Your task to perform on an android device: see creations saved in the google photos Image 0: 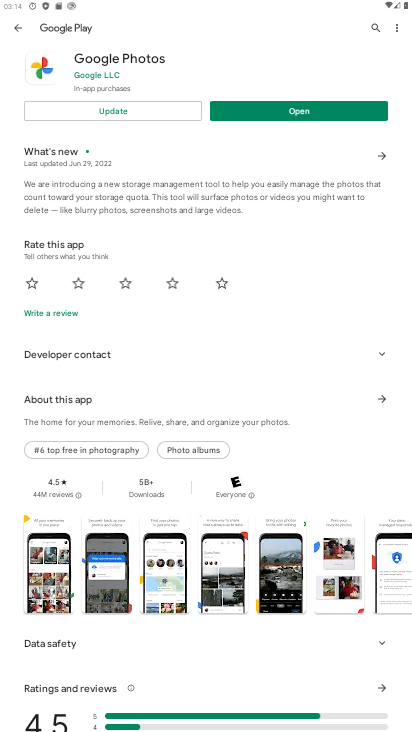
Step 0: press home button
Your task to perform on an android device: see creations saved in the google photos Image 1: 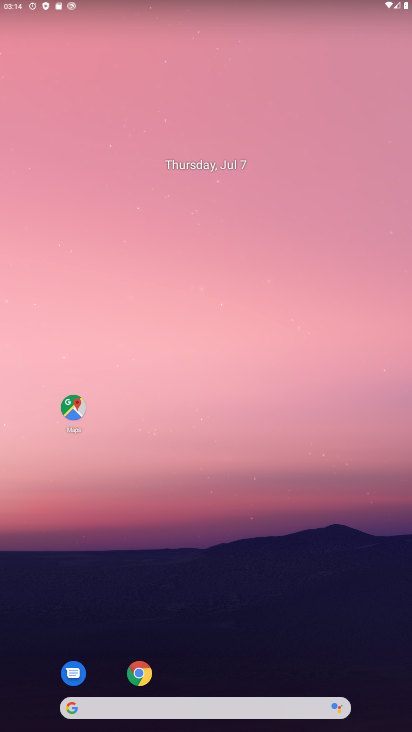
Step 1: drag from (197, 652) to (253, 185)
Your task to perform on an android device: see creations saved in the google photos Image 2: 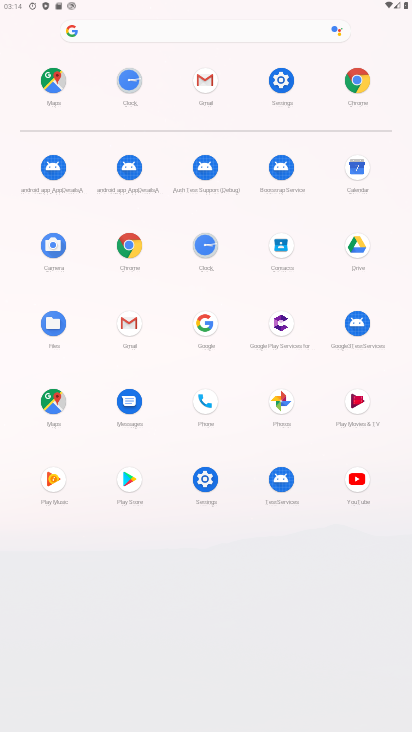
Step 2: click (280, 398)
Your task to perform on an android device: see creations saved in the google photos Image 3: 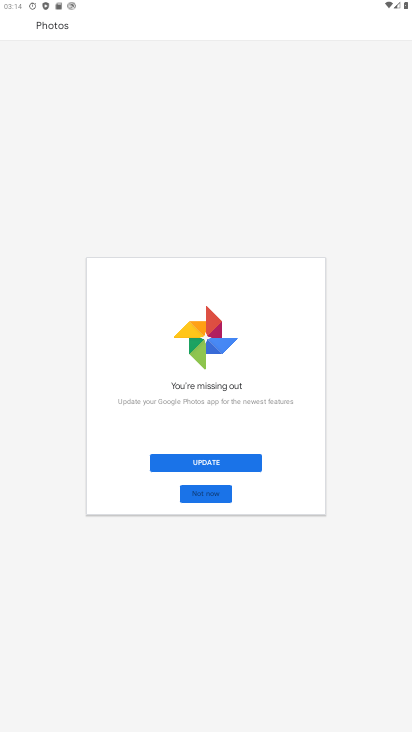
Step 3: click (209, 489)
Your task to perform on an android device: see creations saved in the google photos Image 4: 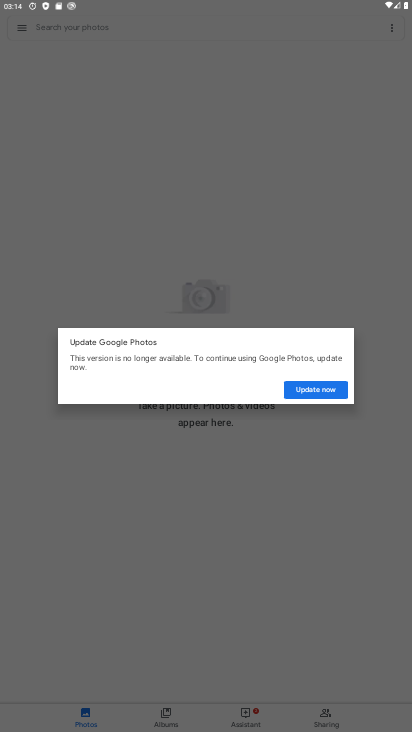
Step 4: click (293, 383)
Your task to perform on an android device: see creations saved in the google photos Image 5: 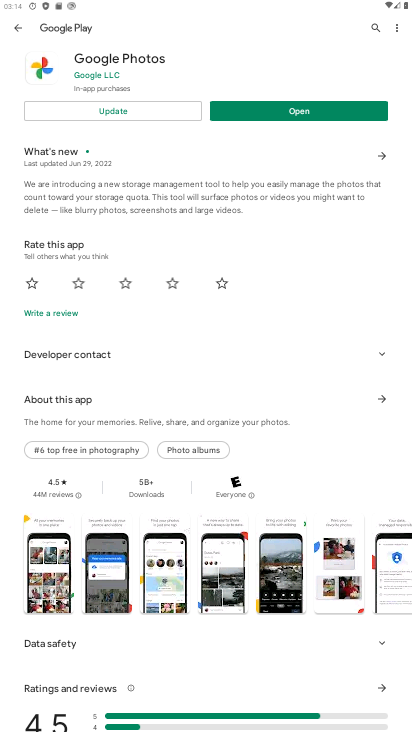
Step 5: click (254, 109)
Your task to perform on an android device: see creations saved in the google photos Image 6: 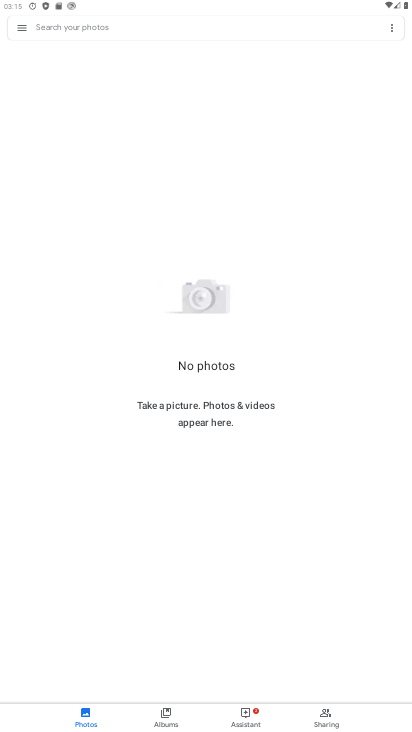
Step 6: click (170, 25)
Your task to perform on an android device: see creations saved in the google photos Image 7: 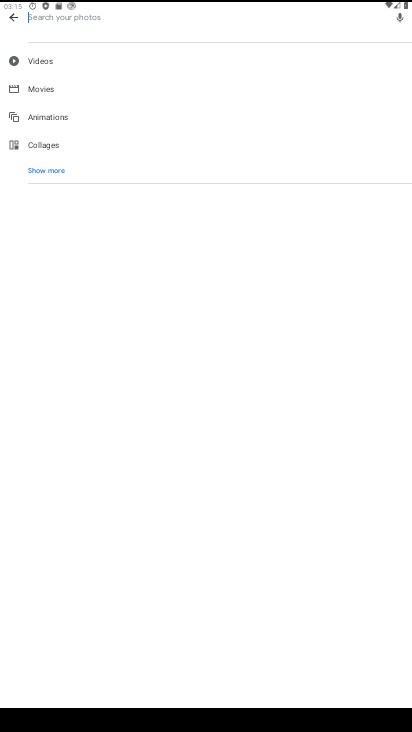
Step 7: click (53, 168)
Your task to perform on an android device: see creations saved in the google photos Image 8: 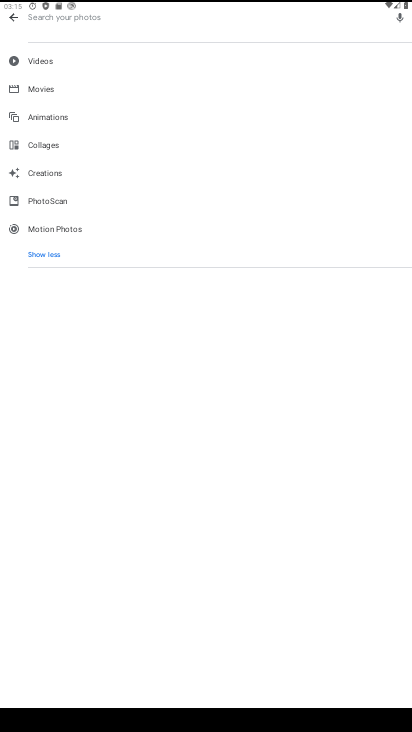
Step 8: click (60, 176)
Your task to perform on an android device: see creations saved in the google photos Image 9: 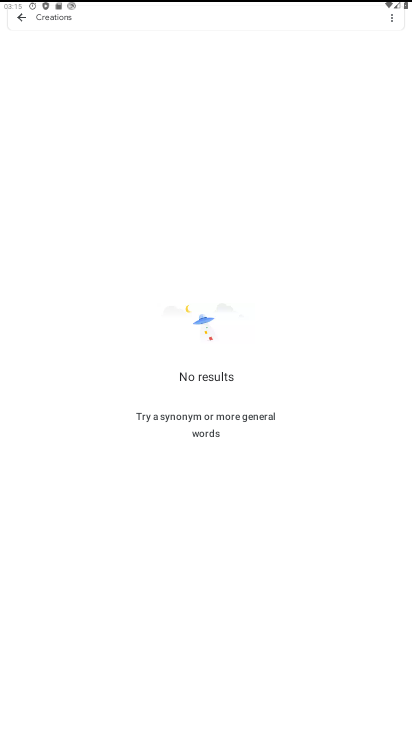
Step 9: task complete